Your task to perform on an android device: see creations saved in the google photos Image 0: 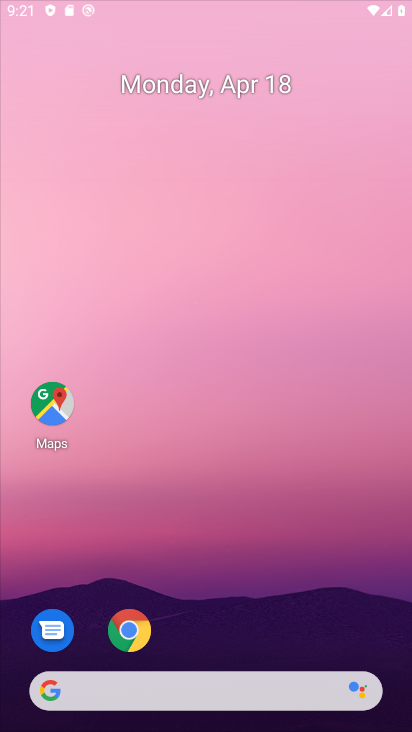
Step 0: drag from (211, 521) to (262, 208)
Your task to perform on an android device: see creations saved in the google photos Image 1: 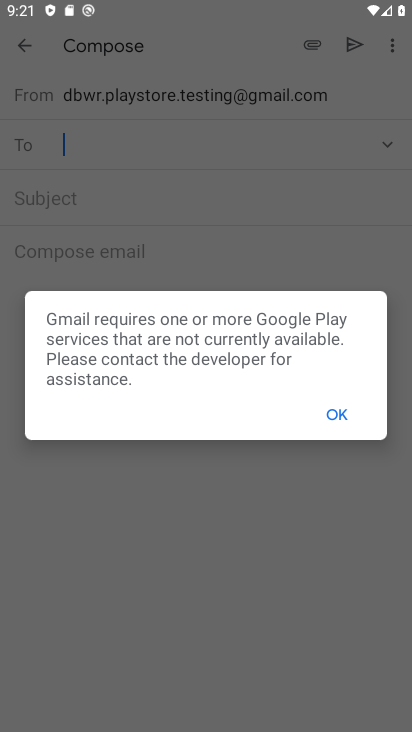
Step 1: press back button
Your task to perform on an android device: see creations saved in the google photos Image 2: 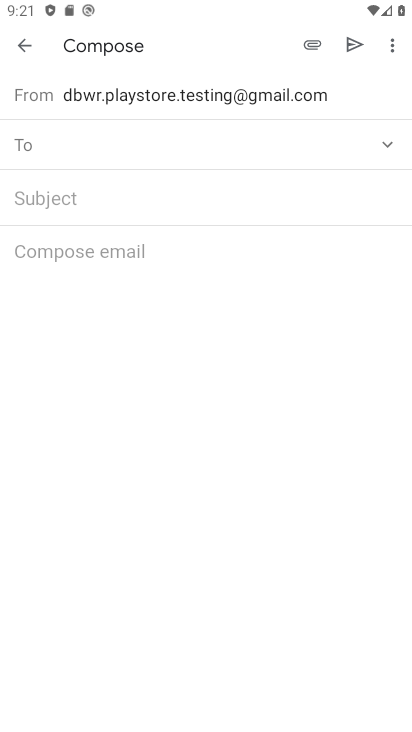
Step 2: press back button
Your task to perform on an android device: see creations saved in the google photos Image 3: 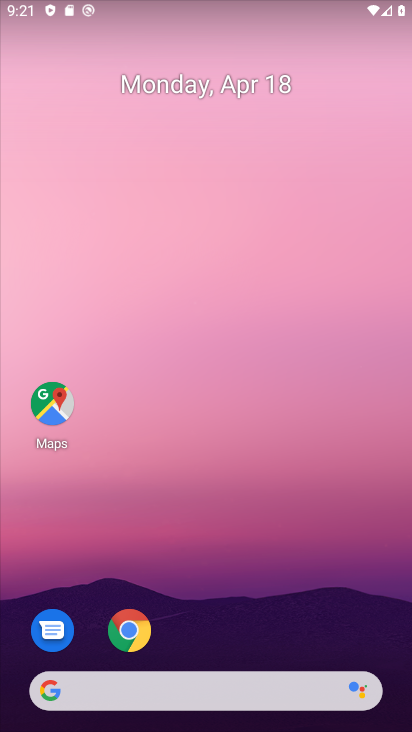
Step 3: drag from (224, 606) to (410, 128)
Your task to perform on an android device: see creations saved in the google photos Image 4: 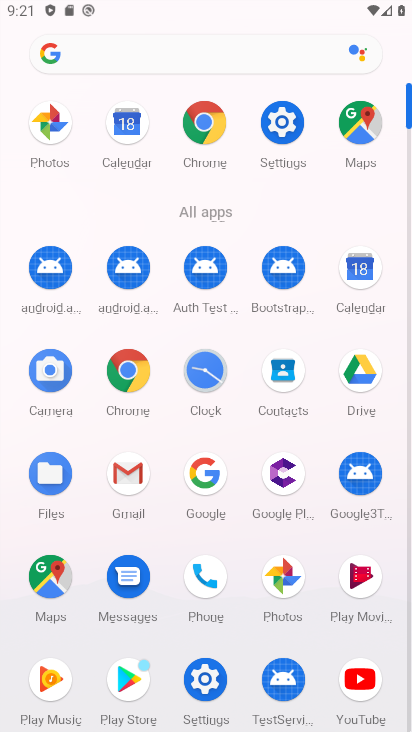
Step 4: click (286, 581)
Your task to perform on an android device: see creations saved in the google photos Image 5: 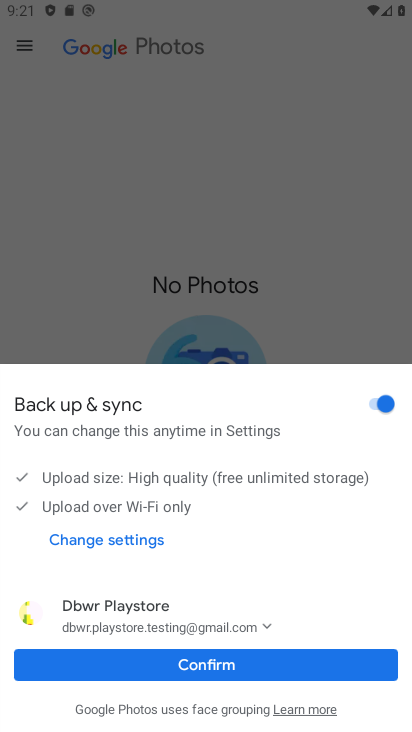
Step 5: click (222, 674)
Your task to perform on an android device: see creations saved in the google photos Image 6: 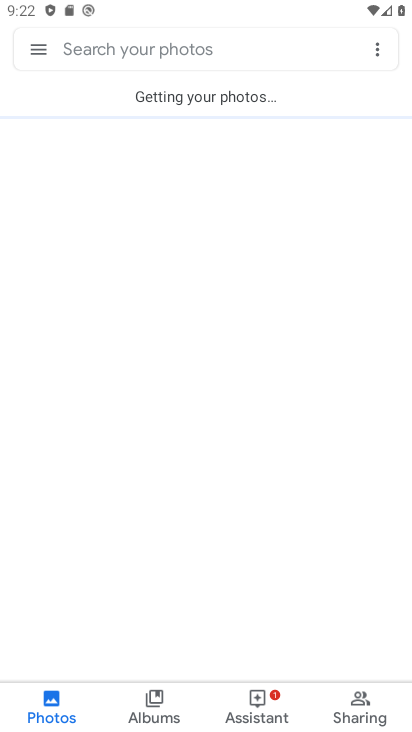
Step 6: click (169, 54)
Your task to perform on an android device: see creations saved in the google photos Image 7: 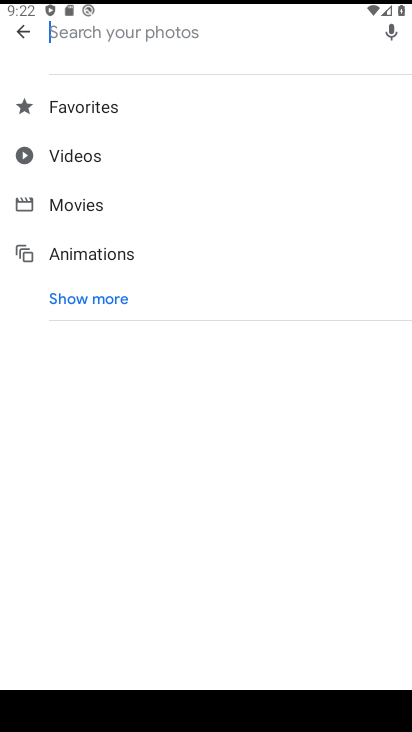
Step 7: type "creations"
Your task to perform on an android device: see creations saved in the google photos Image 8: 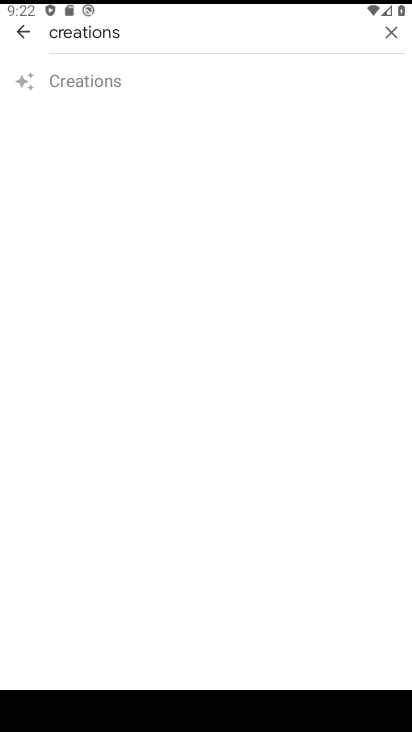
Step 8: click (120, 96)
Your task to perform on an android device: see creations saved in the google photos Image 9: 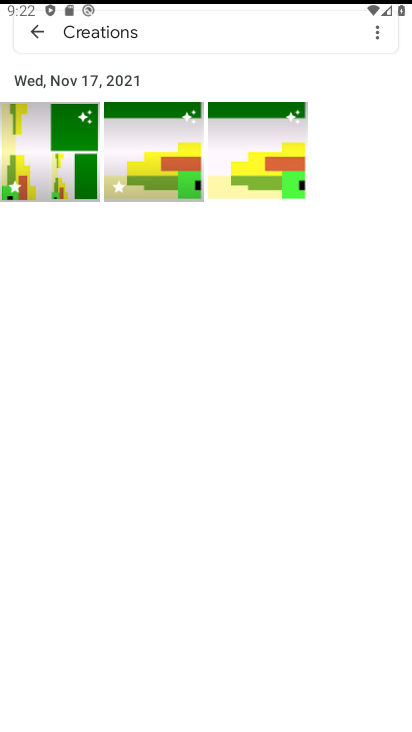
Step 9: task complete